Your task to perform on an android device: turn off wifi Image 0: 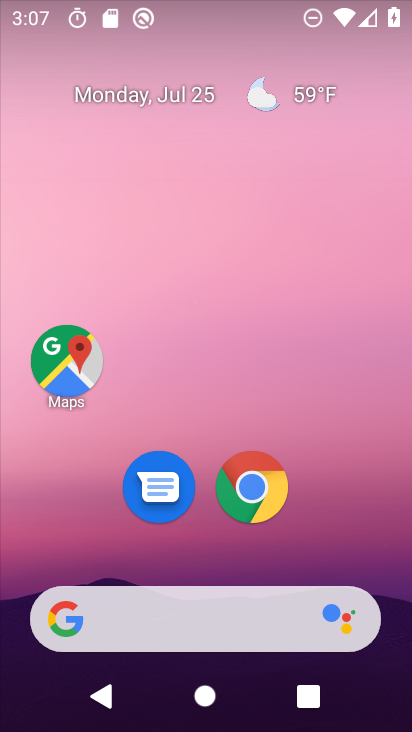
Step 0: drag from (212, 50) to (245, 606)
Your task to perform on an android device: turn off wifi Image 1: 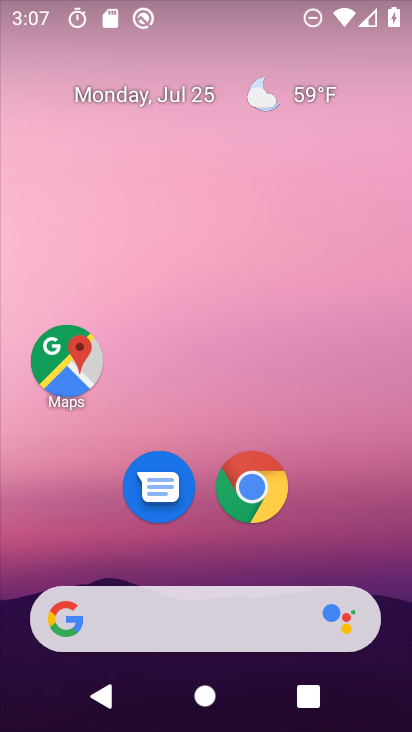
Step 1: drag from (222, 9) to (210, 526)
Your task to perform on an android device: turn off wifi Image 2: 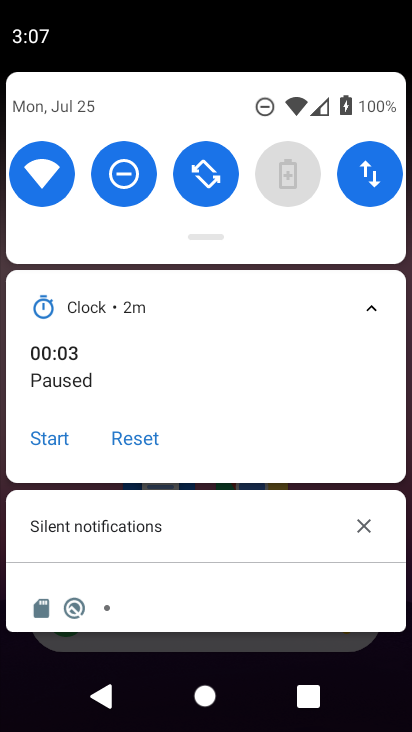
Step 2: click (31, 170)
Your task to perform on an android device: turn off wifi Image 3: 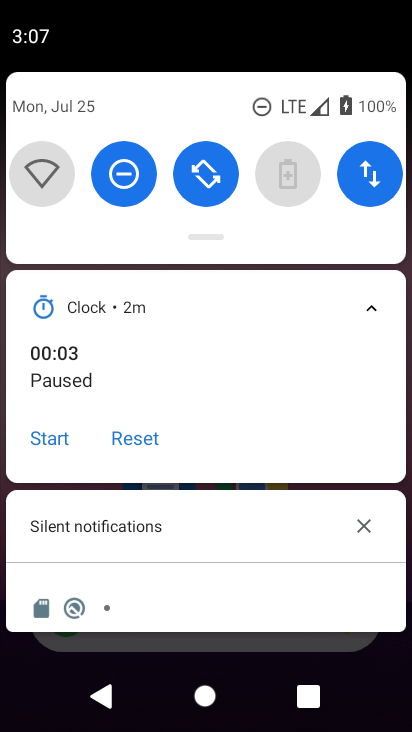
Step 3: task complete